Your task to perform on an android device: see creations saved in the google photos Image 0: 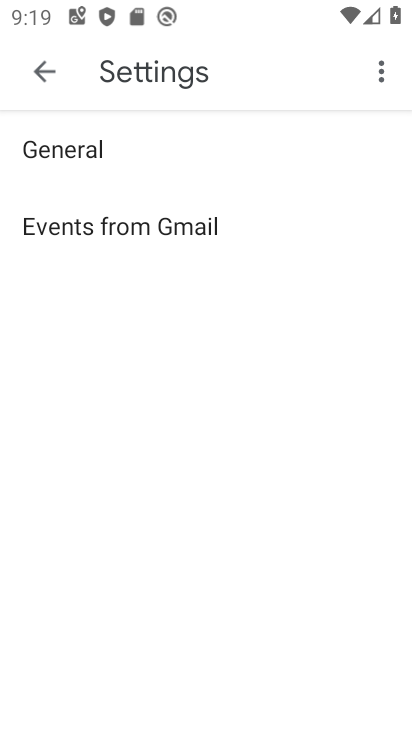
Step 0: press home button
Your task to perform on an android device: see creations saved in the google photos Image 1: 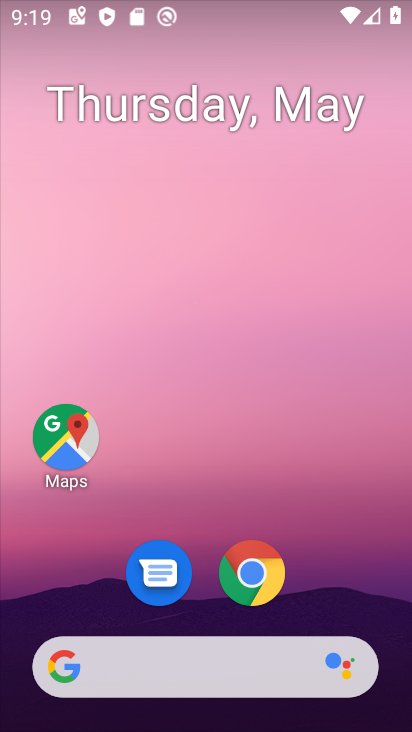
Step 1: drag from (111, 445) to (82, 198)
Your task to perform on an android device: see creations saved in the google photos Image 2: 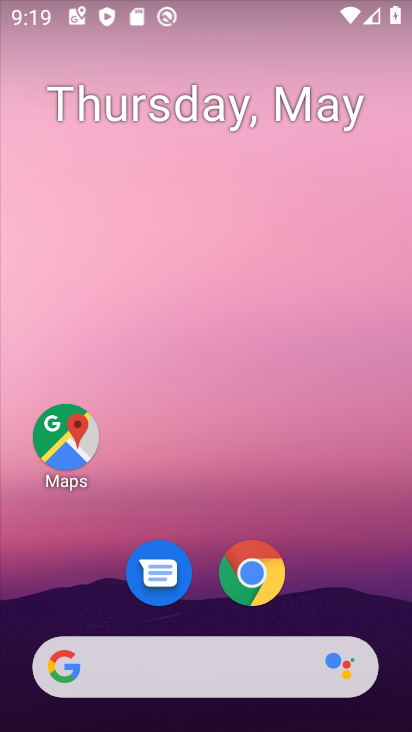
Step 2: drag from (337, 587) to (276, 154)
Your task to perform on an android device: see creations saved in the google photos Image 3: 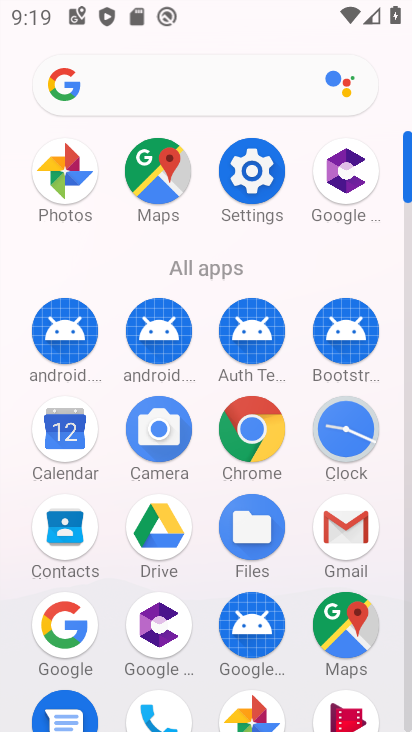
Step 3: click (244, 695)
Your task to perform on an android device: see creations saved in the google photos Image 4: 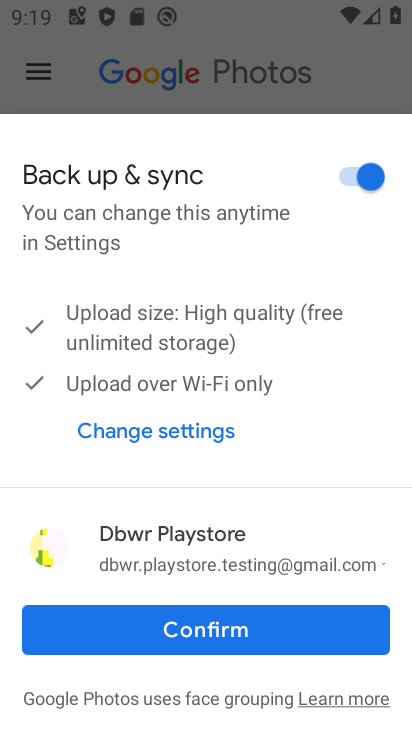
Step 4: click (243, 106)
Your task to perform on an android device: see creations saved in the google photos Image 5: 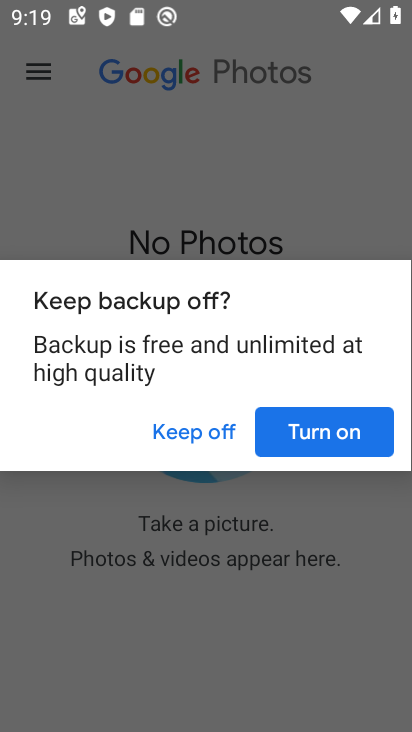
Step 5: click (163, 431)
Your task to perform on an android device: see creations saved in the google photos Image 6: 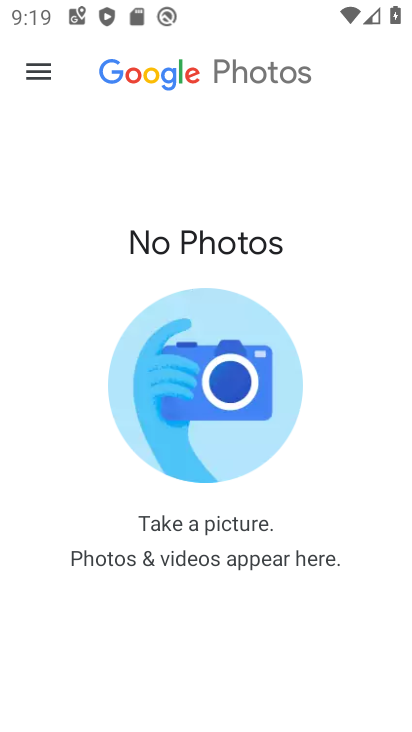
Step 6: click (40, 81)
Your task to perform on an android device: see creations saved in the google photos Image 7: 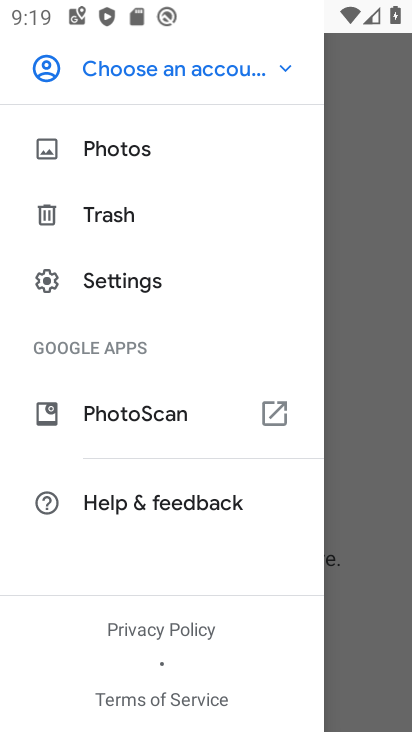
Step 7: click (361, 269)
Your task to perform on an android device: see creations saved in the google photos Image 8: 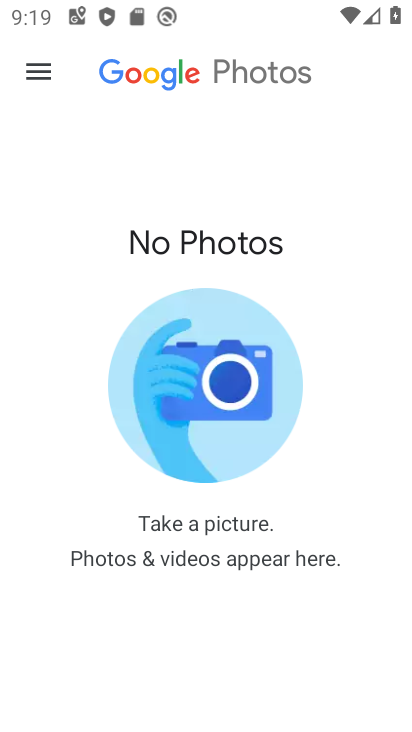
Step 8: press back button
Your task to perform on an android device: see creations saved in the google photos Image 9: 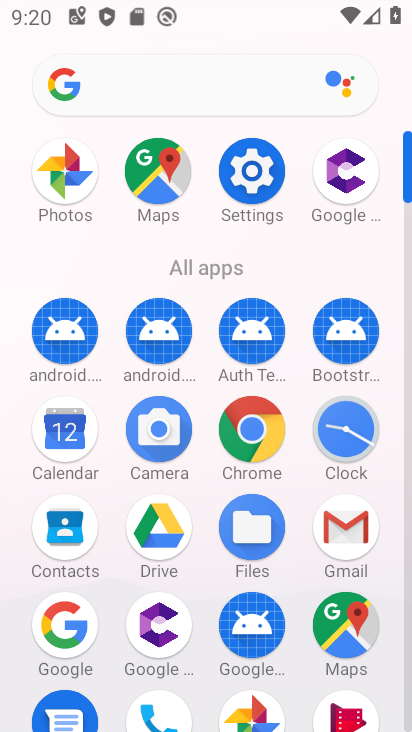
Step 9: click (88, 177)
Your task to perform on an android device: see creations saved in the google photos Image 10: 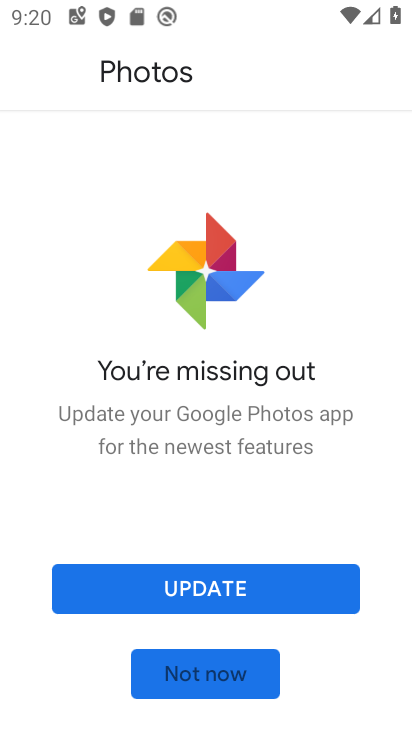
Step 10: click (184, 599)
Your task to perform on an android device: see creations saved in the google photos Image 11: 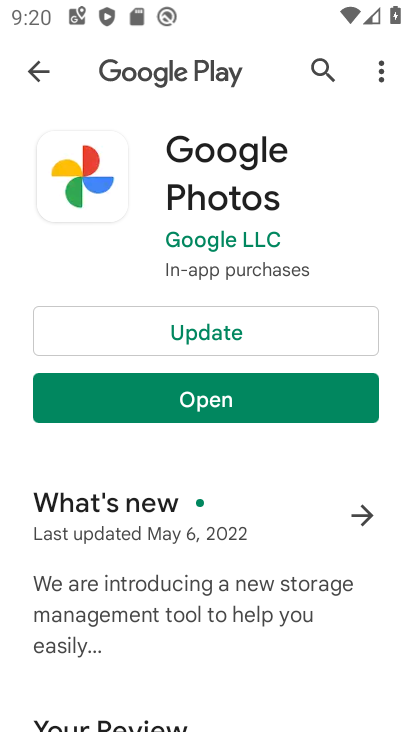
Step 11: click (201, 337)
Your task to perform on an android device: see creations saved in the google photos Image 12: 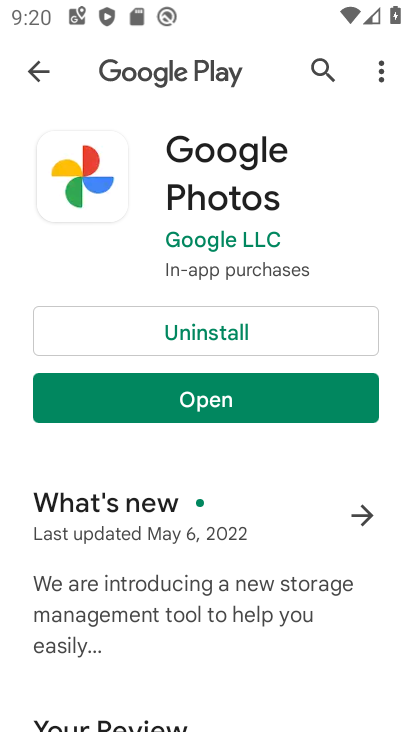
Step 12: click (165, 393)
Your task to perform on an android device: see creations saved in the google photos Image 13: 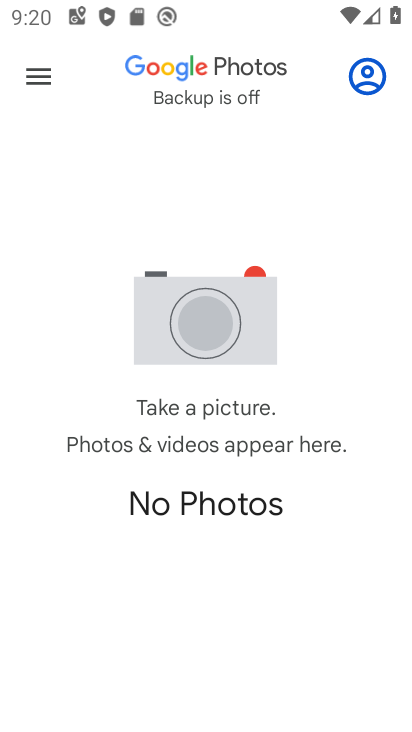
Step 13: click (230, 95)
Your task to perform on an android device: see creations saved in the google photos Image 14: 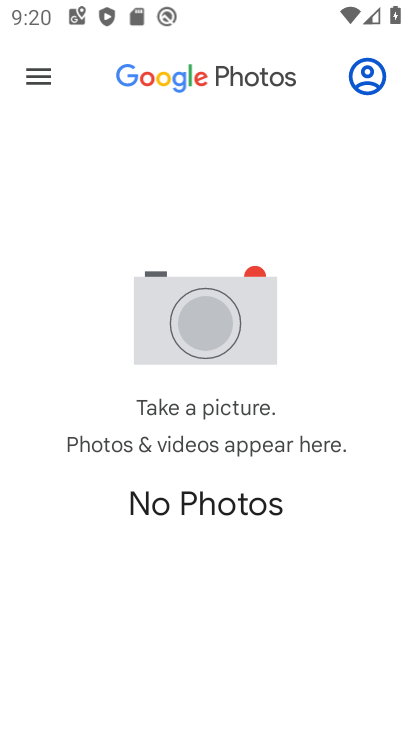
Step 14: click (38, 72)
Your task to perform on an android device: see creations saved in the google photos Image 15: 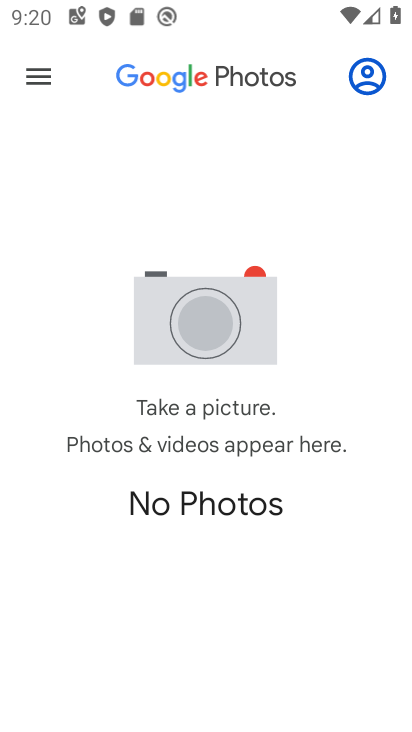
Step 15: click (42, 75)
Your task to perform on an android device: see creations saved in the google photos Image 16: 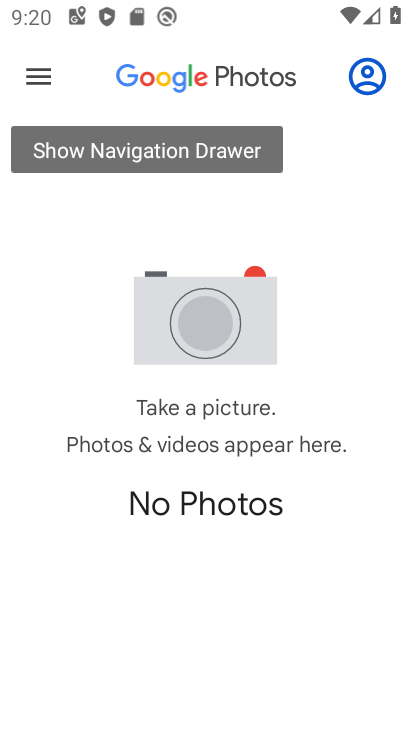
Step 16: click (31, 78)
Your task to perform on an android device: see creations saved in the google photos Image 17: 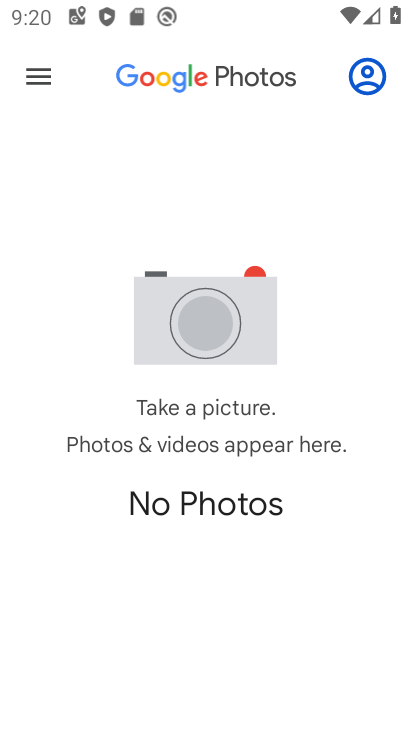
Step 17: task complete